Your task to perform on an android device: turn on data saver in the chrome app Image 0: 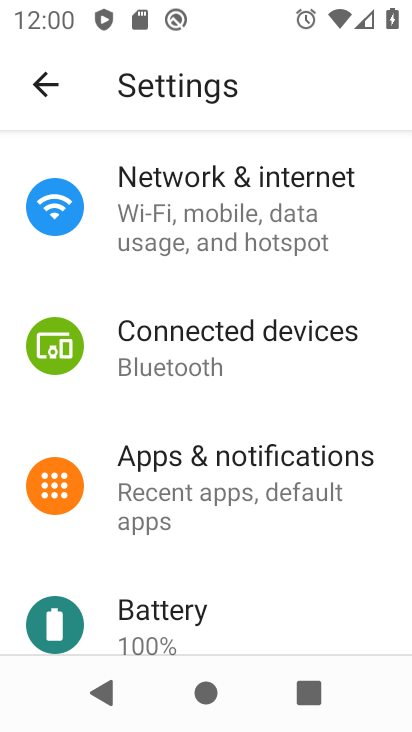
Step 0: press home button
Your task to perform on an android device: turn on data saver in the chrome app Image 1: 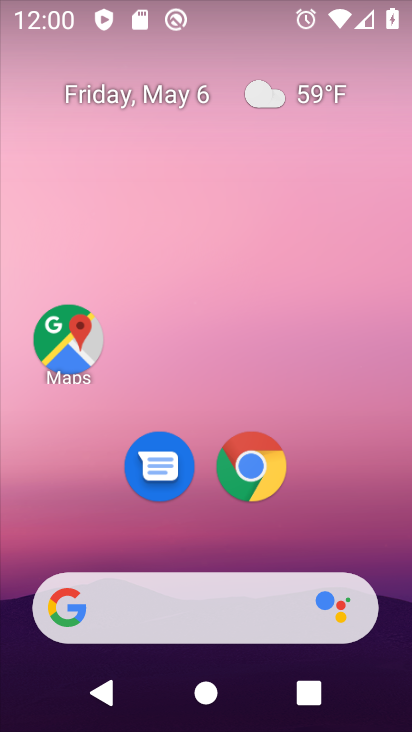
Step 1: click (243, 463)
Your task to perform on an android device: turn on data saver in the chrome app Image 2: 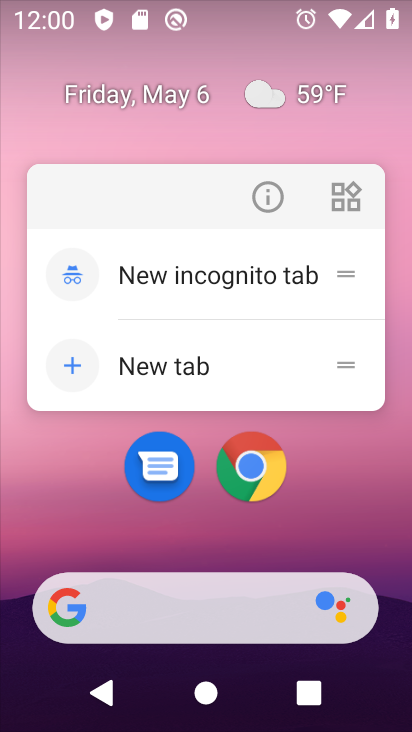
Step 2: click (274, 200)
Your task to perform on an android device: turn on data saver in the chrome app Image 3: 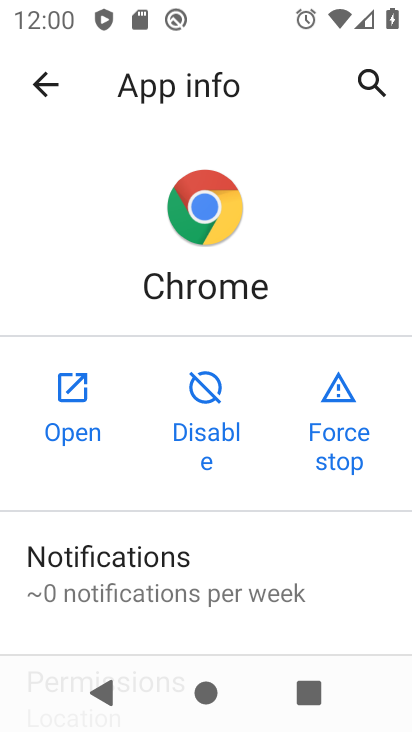
Step 3: click (34, 89)
Your task to perform on an android device: turn on data saver in the chrome app Image 4: 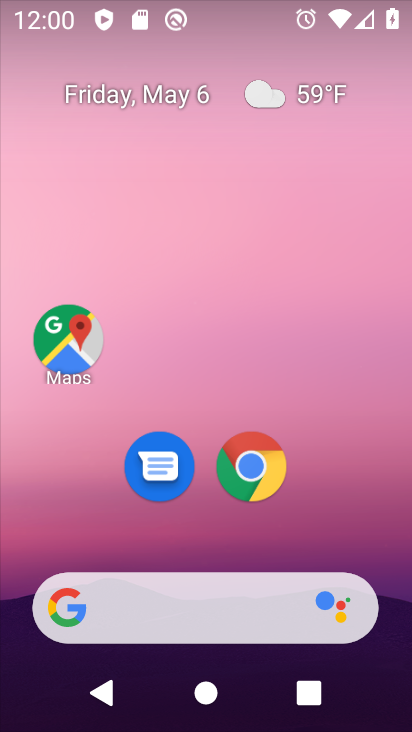
Step 4: click (250, 467)
Your task to perform on an android device: turn on data saver in the chrome app Image 5: 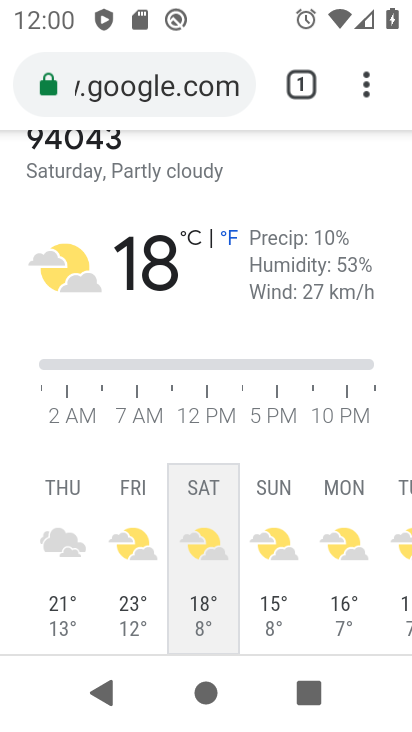
Step 5: click (366, 81)
Your task to perform on an android device: turn on data saver in the chrome app Image 6: 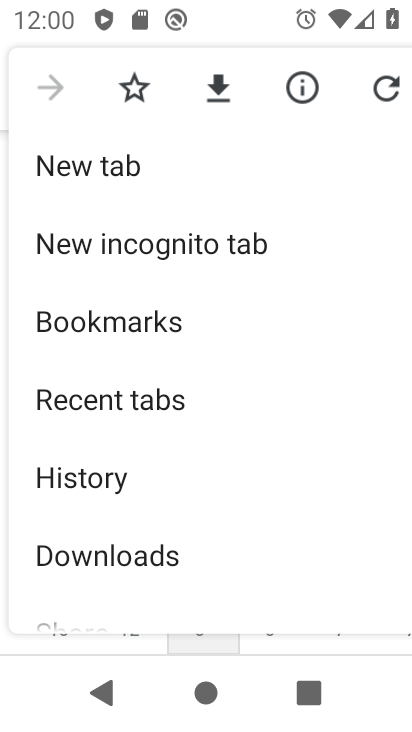
Step 6: drag from (177, 506) to (164, 268)
Your task to perform on an android device: turn on data saver in the chrome app Image 7: 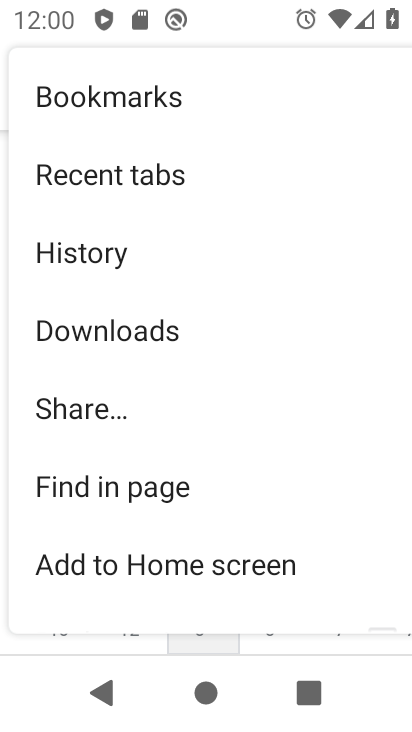
Step 7: drag from (144, 585) to (206, 282)
Your task to perform on an android device: turn on data saver in the chrome app Image 8: 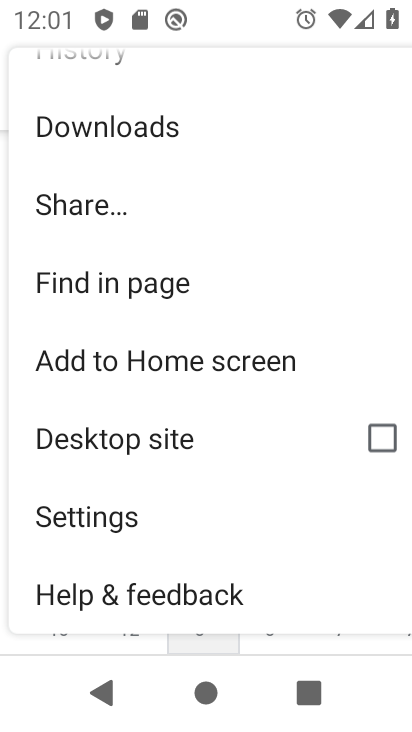
Step 8: click (109, 519)
Your task to perform on an android device: turn on data saver in the chrome app Image 9: 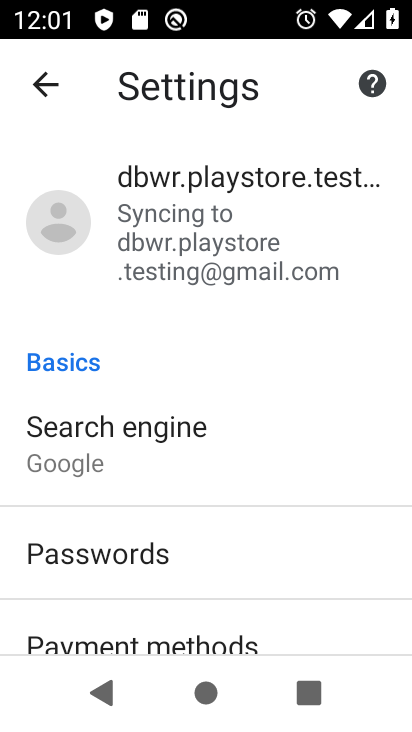
Step 9: drag from (198, 581) to (220, 172)
Your task to perform on an android device: turn on data saver in the chrome app Image 10: 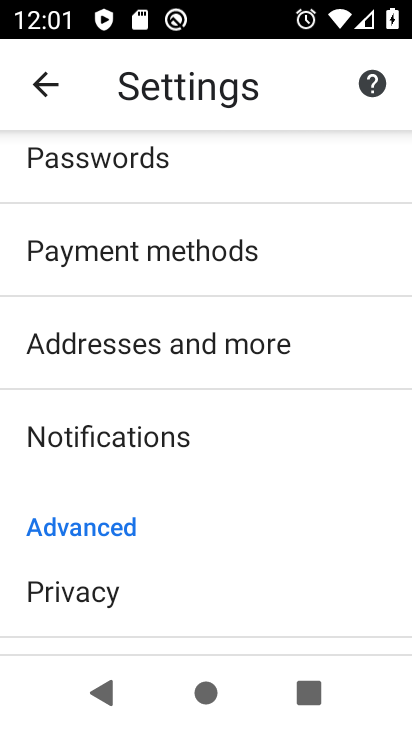
Step 10: drag from (226, 614) to (257, 255)
Your task to perform on an android device: turn on data saver in the chrome app Image 11: 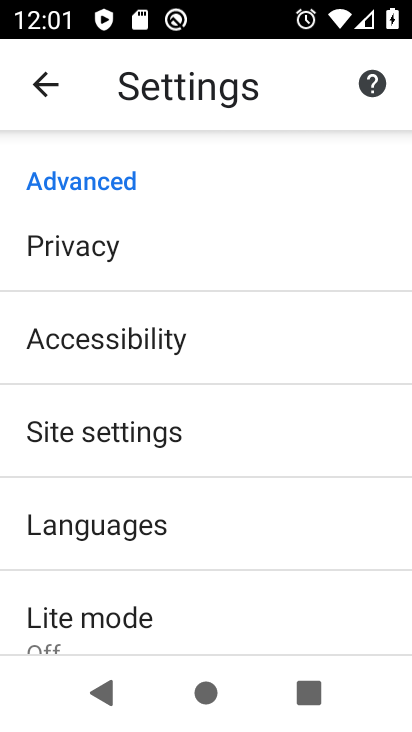
Step 11: click (142, 620)
Your task to perform on an android device: turn on data saver in the chrome app Image 12: 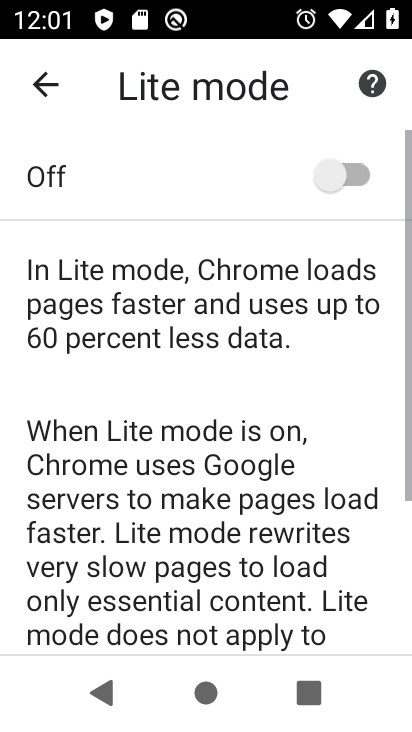
Step 12: click (353, 171)
Your task to perform on an android device: turn on data saver in the chrome app Image 13: 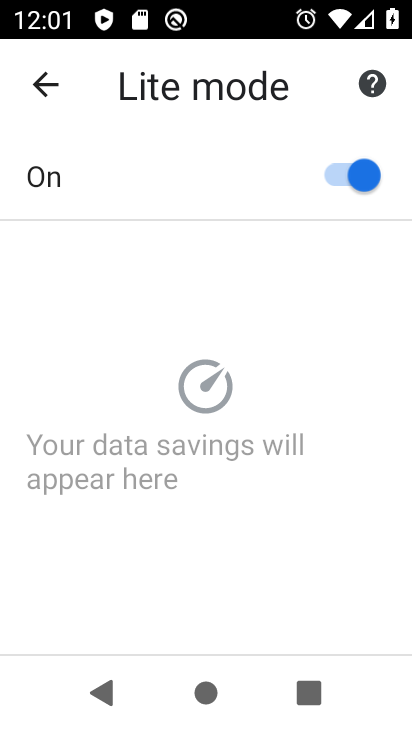
Step 13: task complete